Your task to perform on an android device: Show me the alarms in the clock app Image 0: 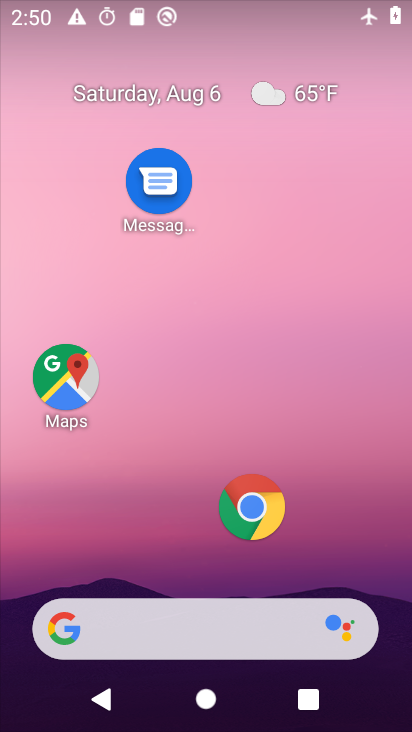
Step 0: drag from (177, 557) to (179, 331)
Your task to perform on an android device: Show me the alarms in the clock app Image 1: 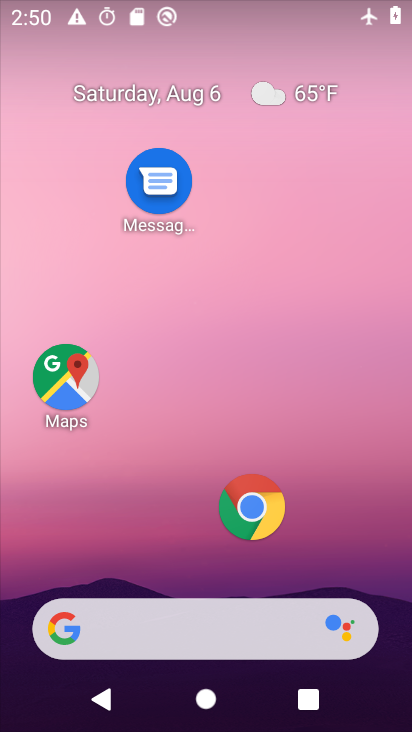
Step 1: drag from (178, 513) to (199, 5)
Your task to perform on an android device: Show me the alarms in the clock app Image 2: 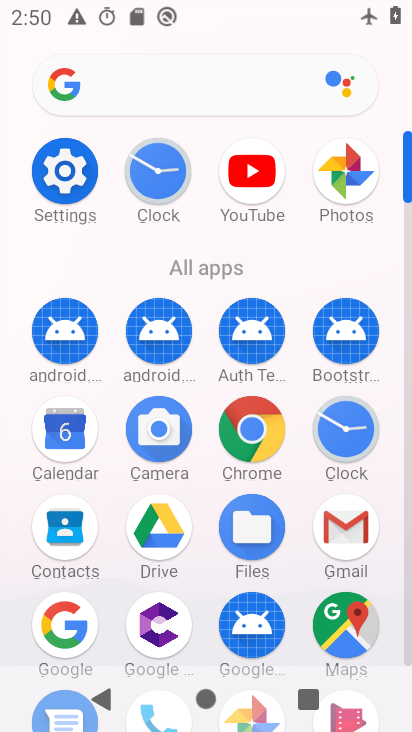
Step 2: click (341, 432)
Your task to perform on an android device: Show me the alarms in the clock app Image 3: 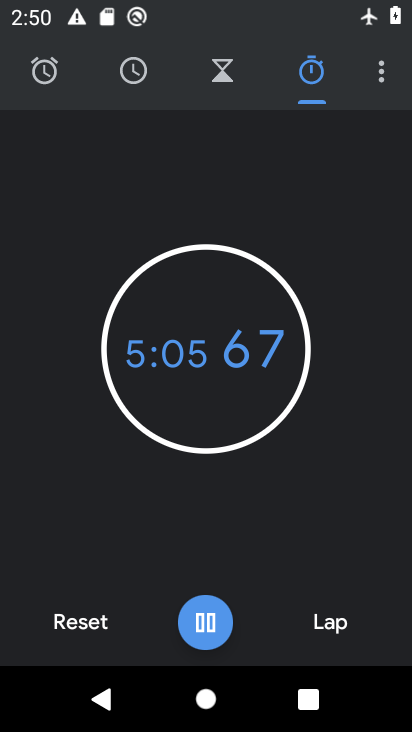
Step 3: click (79, 618)
Your task to perform on an android device: Show me the alarms in the clock app Image 4: 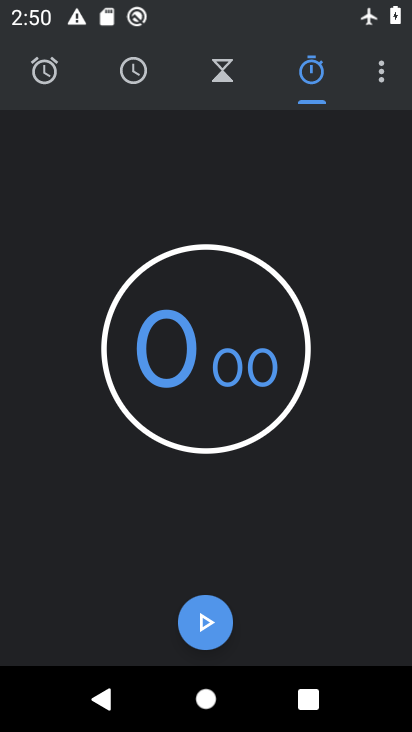
Step 4: click (40, 75)
Your task to perform on an android device: Show me the alarms in the clock app Image 5: 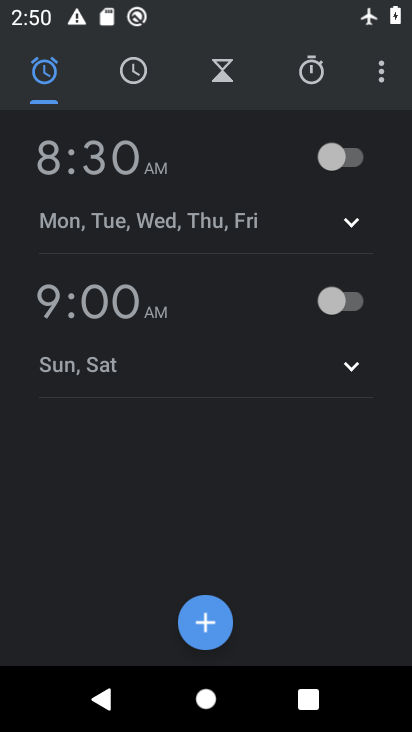
Step 5: task complete